Your task to perform on an android device: visit the assistant section in the google photos Image 0: 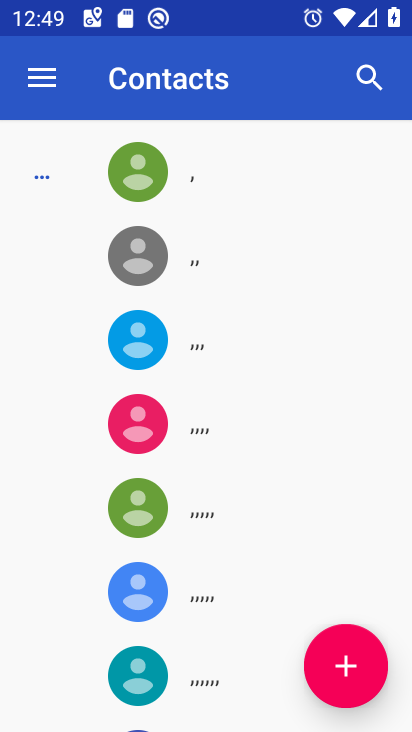
Step 0: press home button
Your task to perform on an android device: visit the assistant section in the google photos Image 1: 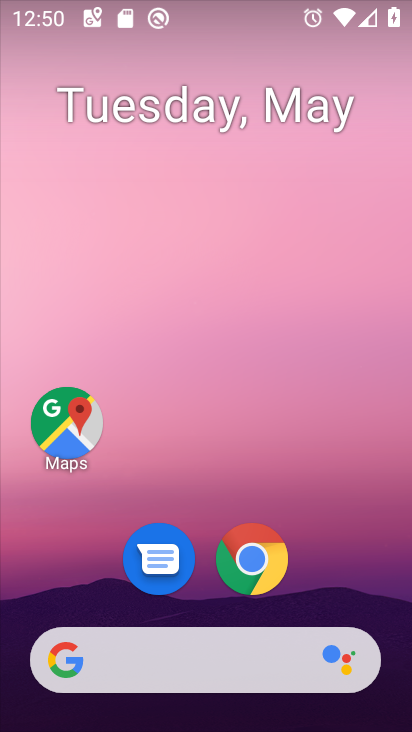
Step 1: drag from (381, 586) to (315, 156)
Your task to perform on an android device: visit the assistant section in the google photos Image 2: 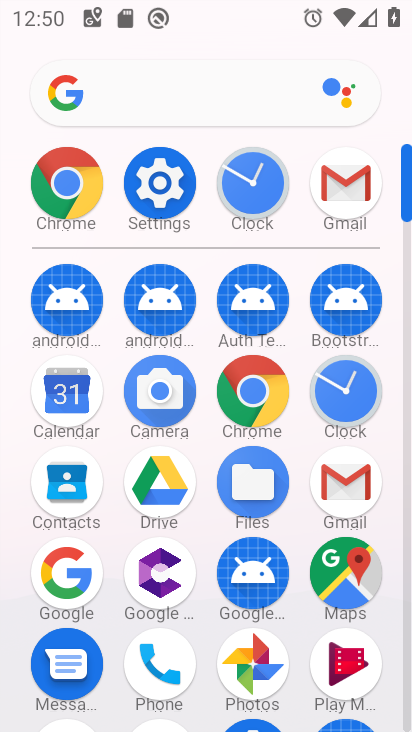
Step 2: click (258, 643)
Your task to perform on an android device: visit the assistant section in the google photos Image 3: 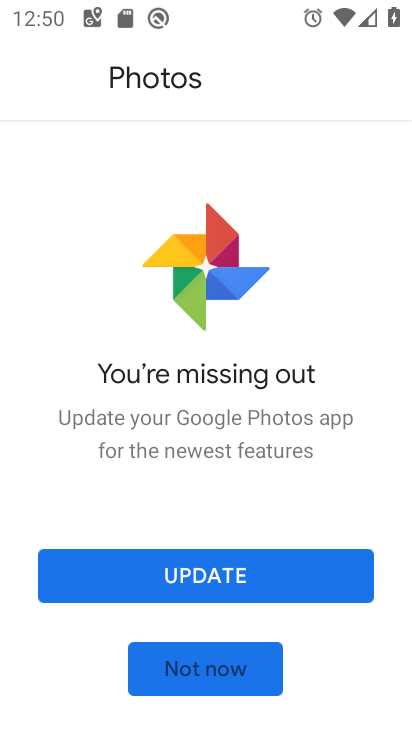
Step 3: click (266, 575)
Your task to perform on an android device: visit the assistant section in the google photos Image 4: 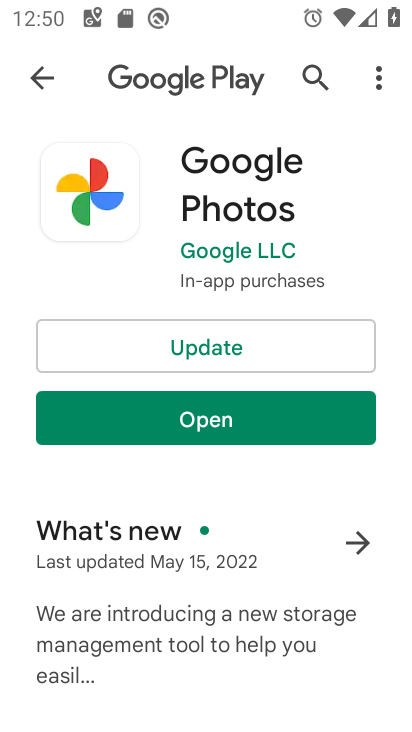
Step 4: click (242, 331)
Your task to perform on an android device: visit the assistant section in the google photos Image 5: 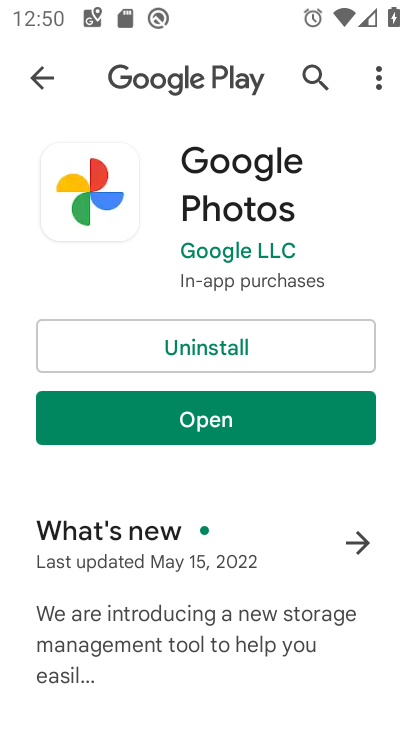
Step 5: click (285, 416)
Your task to perform on an android device: visit the assistant section in the google photos Image 6: 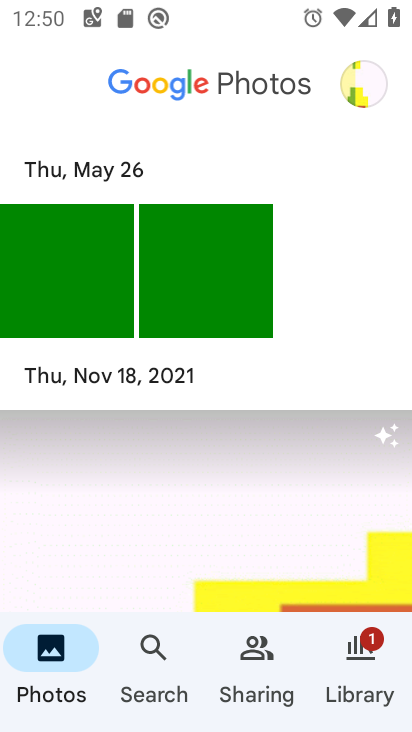
Step 6: click (366, 659)
Your task to perform on an android device: visit the assistant section in the google photos Image 7: 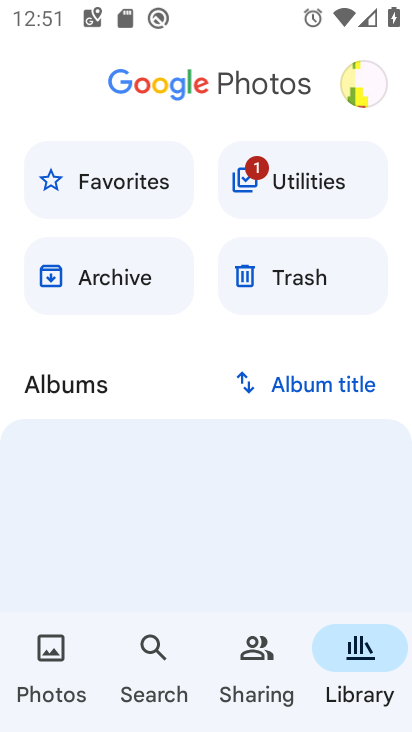
Step 7: click (261, 668)
Your task to perform on an android device: visit the assistant section in the google photos Image 8: 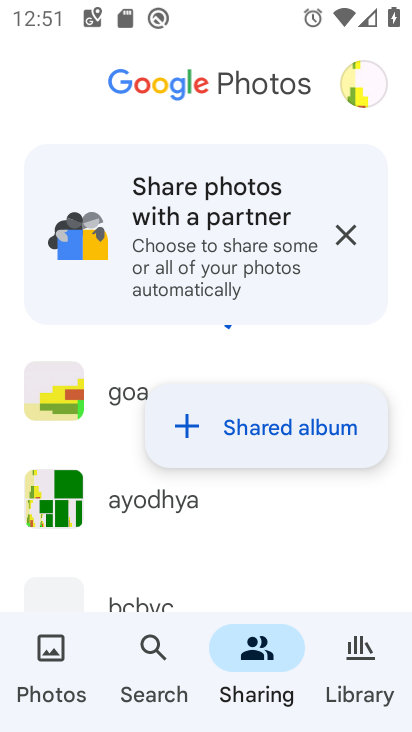
Step 8: click (164, 671)
Your task to perform on an android device: visit the assistant section in the google photos Image 9: 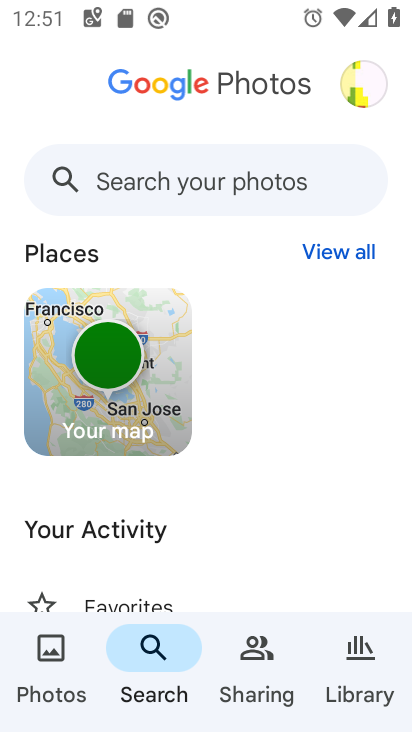
Step 9: click (60, 677)
Your task to perform on an android device: visit the assistant section in the google photos Image 10: 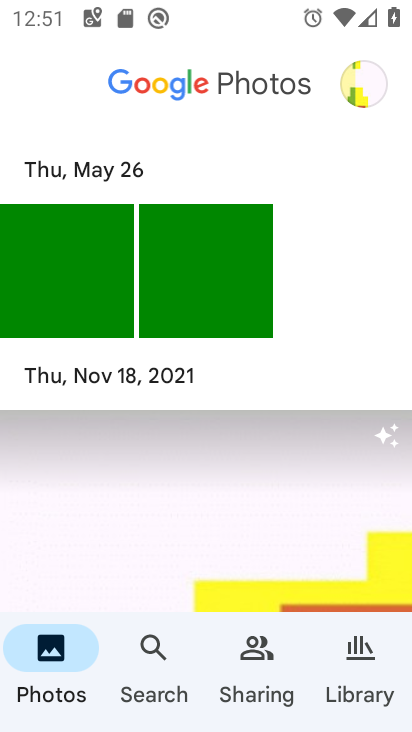
Step 10: task complete